Your task to perform on an android device: Go to battery settings Image 0: 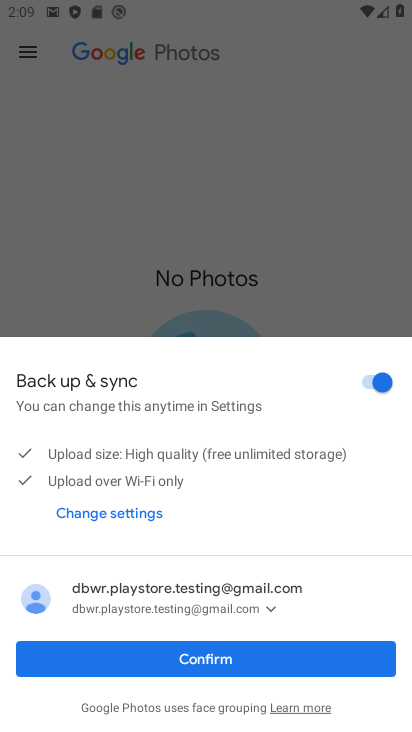
Step 0: press home button
Your task to perform on an android device: Go to battery settings Image 1: 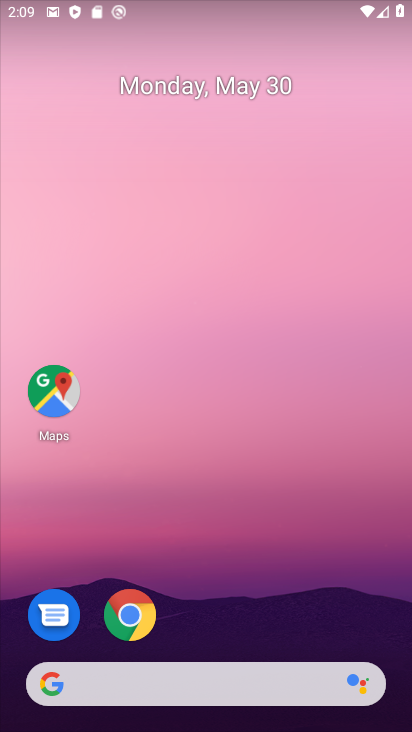
Step 1: drag from (254, 576) to (218, 40)
Your task to perform on an android device: Go to battery settings Image 2: 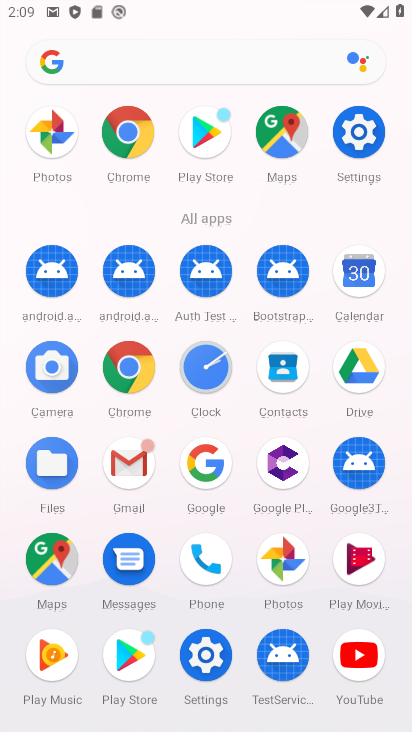
Step 2: click (365, 132)
Your task to perform on an android device: Go to battery settings Image 3: 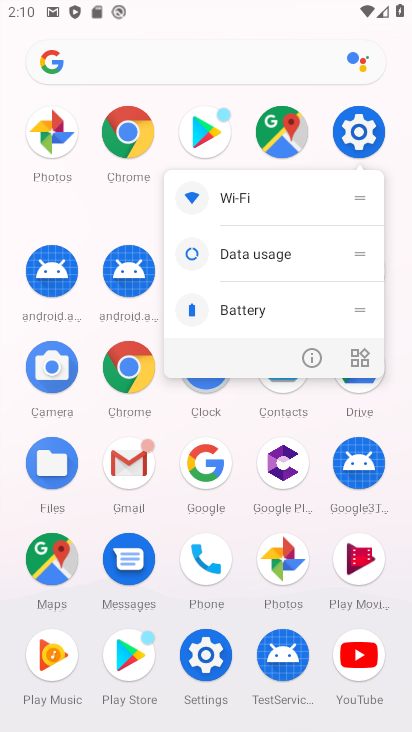
Step 3: click (355, 125)
Your task to perform on an android device: Go to battery settings Image 4: 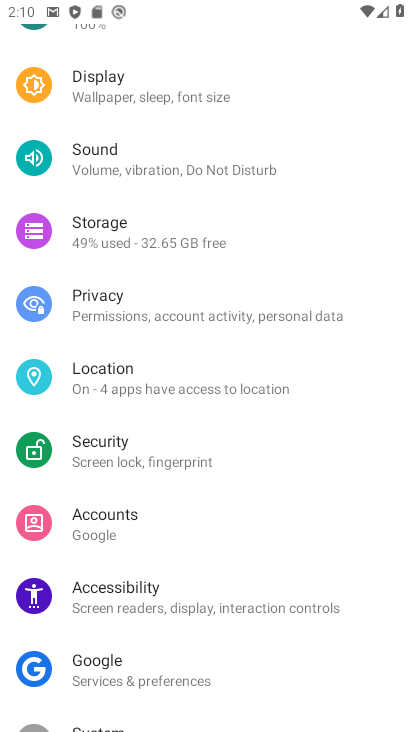
Step 4: drag from (184, 178) to (184, 557)
Your task to perform on an android device: Go to battery settings Image 5: 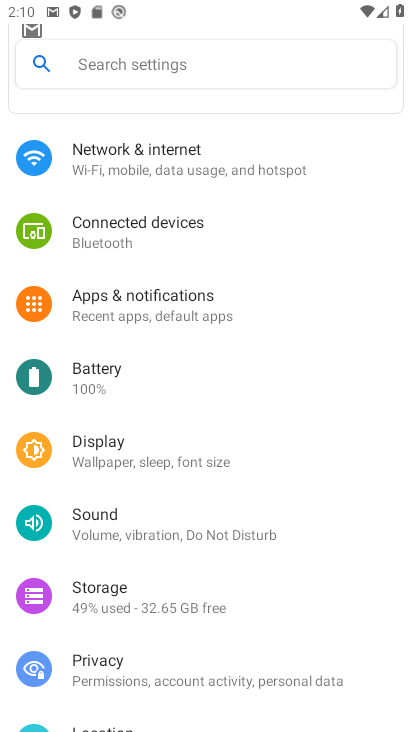
Step 5: click (158, 366)
Your task to perform on an android device: Go to battery settings Image 6: 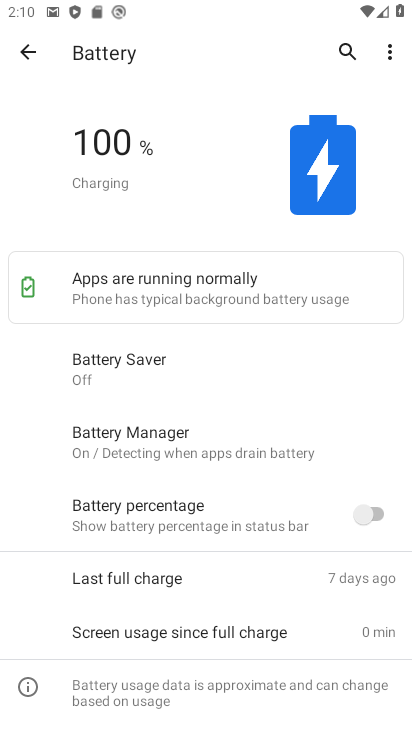
Step 6: task complete